Your task to perform on an android device: Show me popular games on the Play Store Image 0: 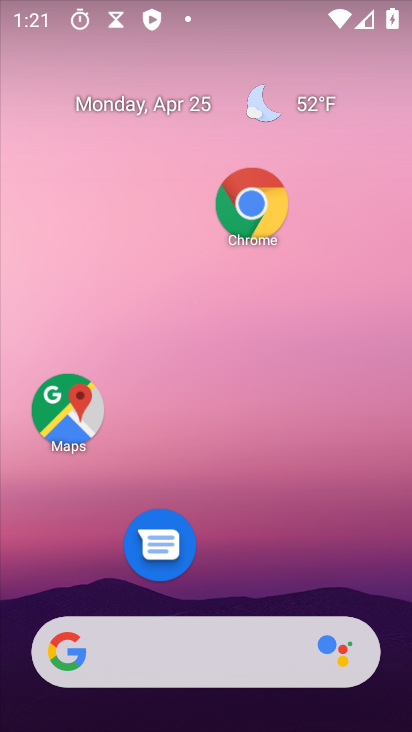
Step 0: drag from (292, 686) to (317, 191)
Your task to perform on an android device: Show me popular games on the Play Store Image 1: 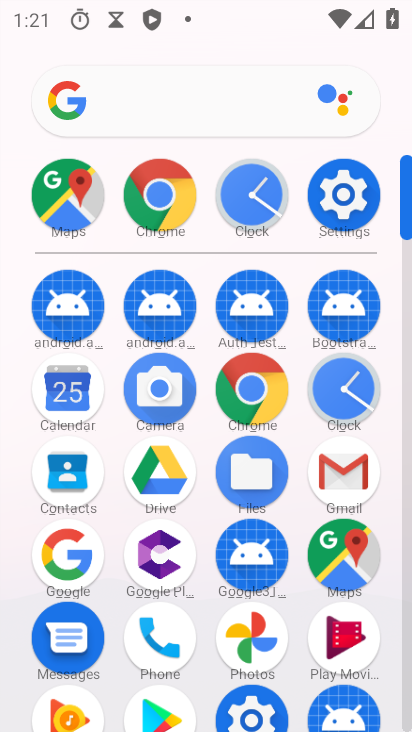
Step 1: click (165, 696)
Your task to perform on an android device: Show me popular games on the Play Store Image 2: 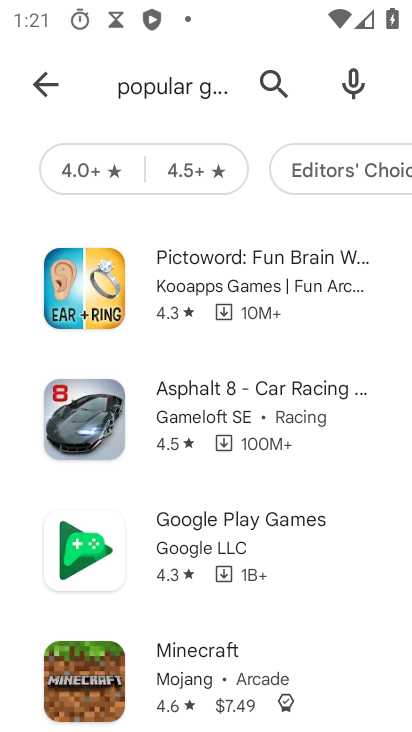
Step 2: click (220, 92)
Your task to perform on an android device: Show me popular games on the Play Store Image 3: 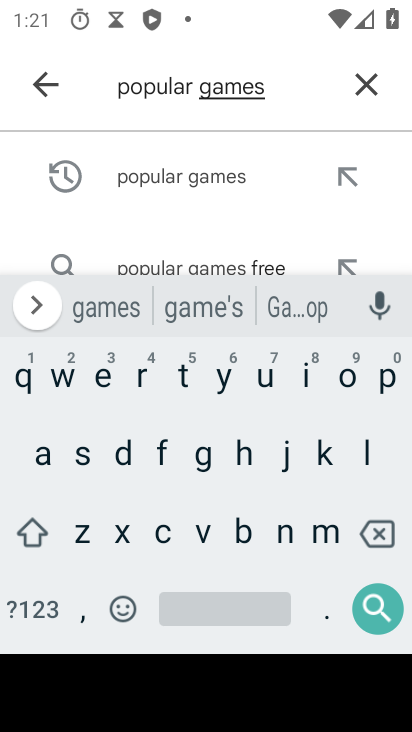
Step 3: click (370, 623)
Your task to perform on an android device: Show me popular games on the Play Store Image 4: 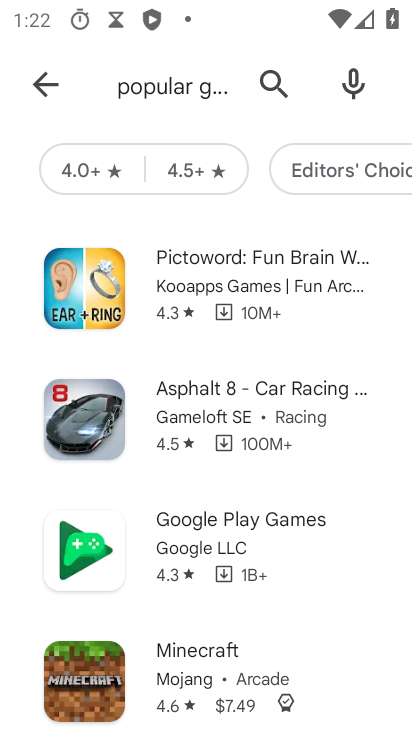
Step 4: task complete